Your task to perform on an android device: open sync settings in chrome Image 0: 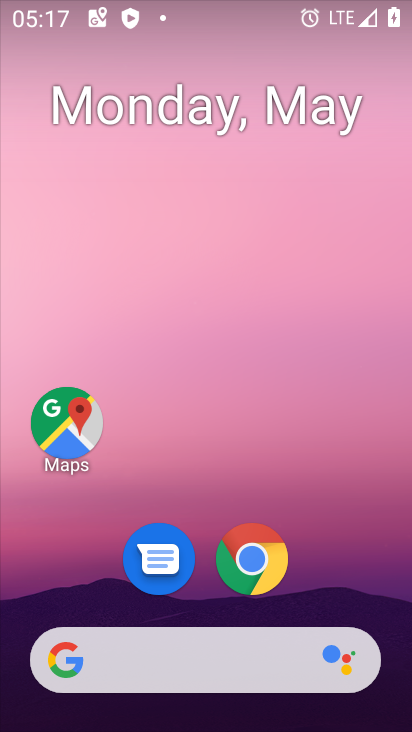
Step 0: drag from (230, 605) to (257, 2)
Your task to perform on an android device: open sync settings in chrome Image 1: 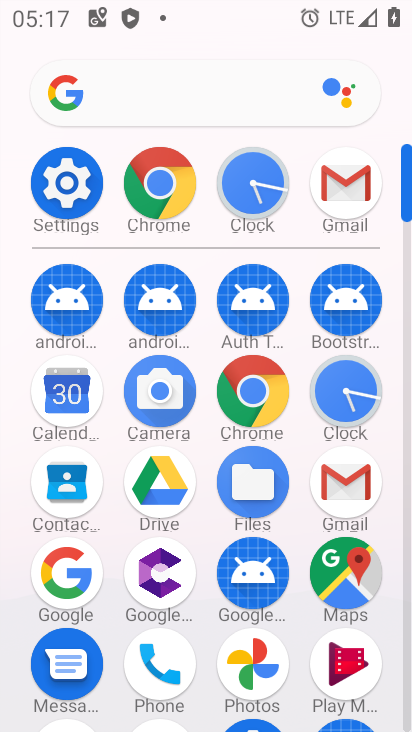
Step 1: click (246, 409)
Your task to perform on an android device: open sync settings in chrome Image 2: 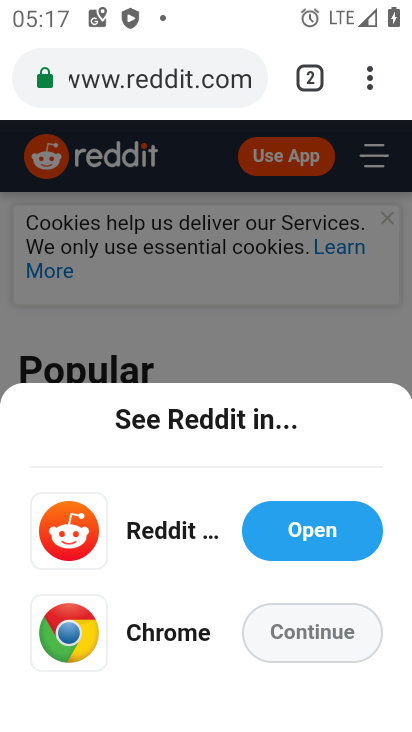
Step 2: drag from (370, 95) to (152, 628)
Your task to perform on an android device: open sync settings in chrome Image 3: 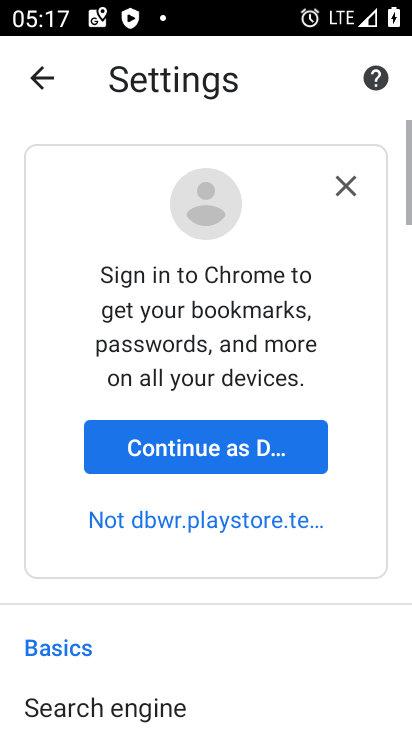
Step 3: drag from (205, 614) to (309, 4)
Your task to perform on an android device: open sync settings in chrome Image 4: 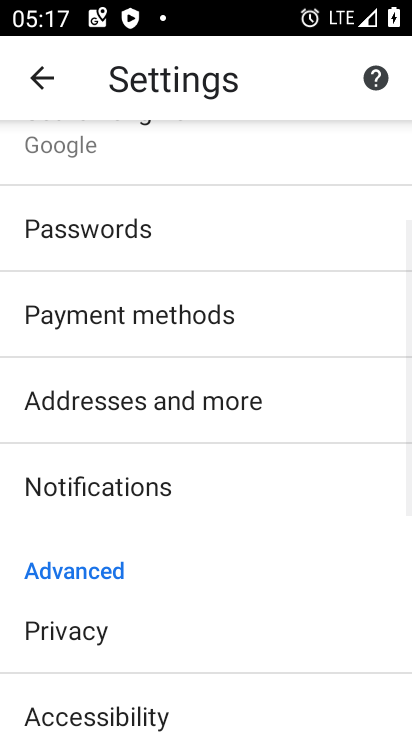
Step 4: drag from (235, 599) to (319, 69)
Your task to perform on an android device: open sync settings in chrome Image 5: 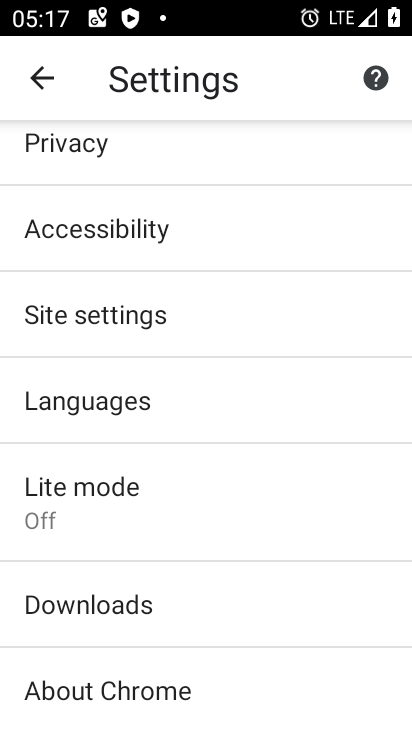
Step 5: drag from (216, 686) to (243, 448)
Your task to perform on an android device: open sync settings in chrome Image 6: 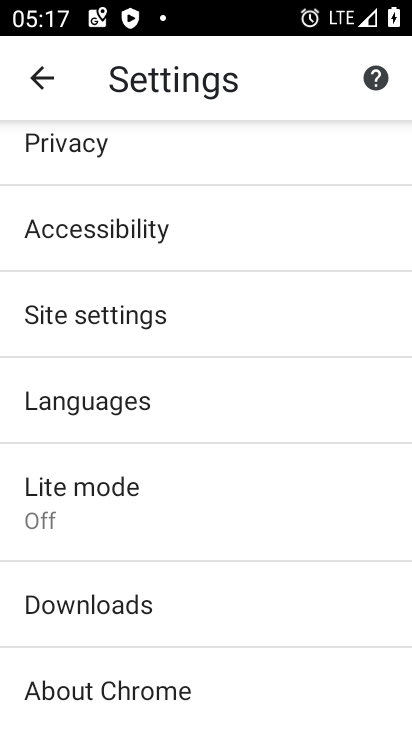
Step 6: click (186, 311)
Your task to perform on an android device: open sync settings in chrome Image 7: 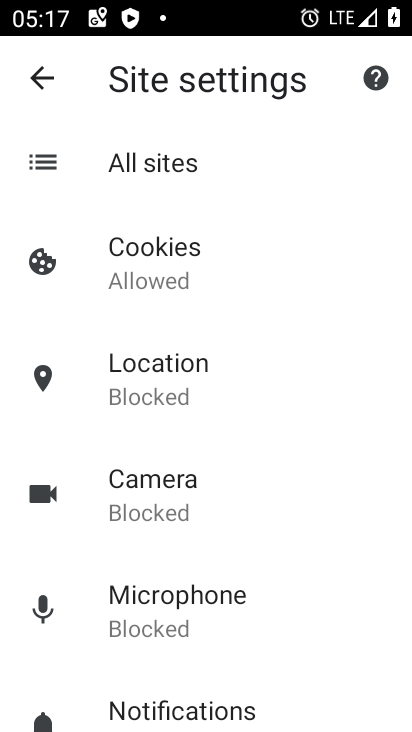
Step 7: drag from (233, 659) to (309, 137)
Your task to perform on an android device: open sync settings in chrome Image 8: 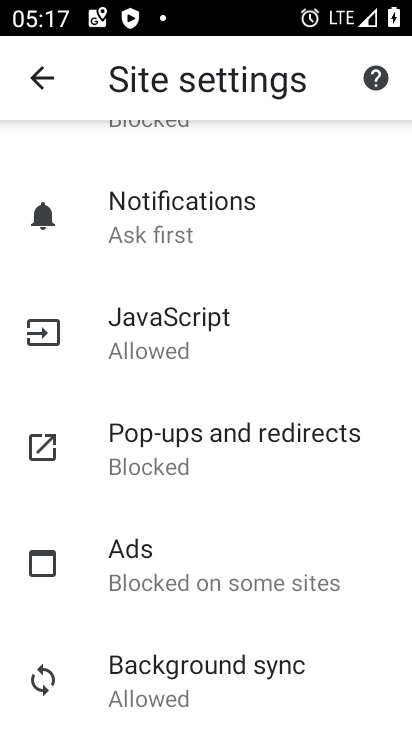
Step 8: click (211, 692)
Your task to perform on an android device: open sync settings in chrome Image 9: 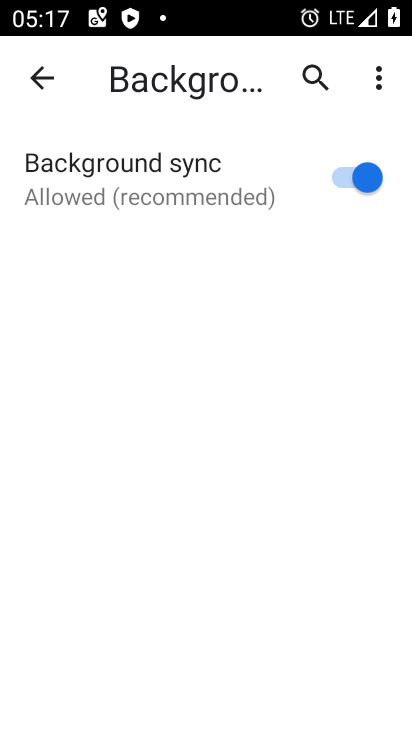
Step 9: task complete